Your task to perform on an android device: turn notification dots on Image 0: 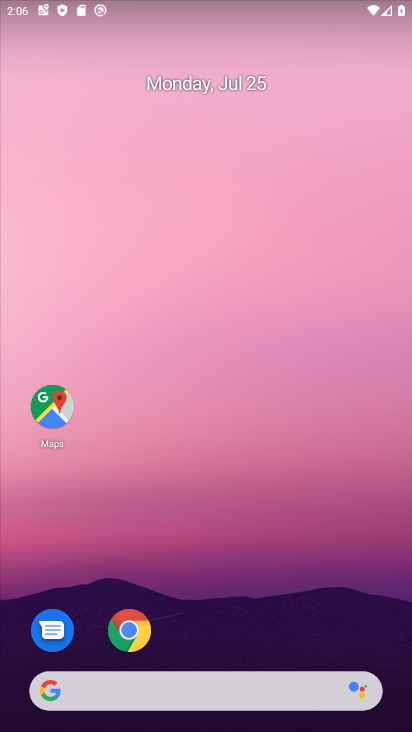
Step 0: drag from (306, 632) to (300, 262)
Your task to perform on an android device: turn notification dots on Image 1: 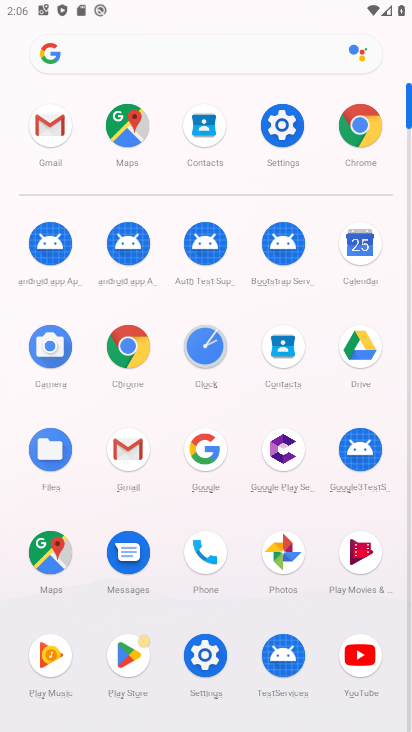
Step 1: click (206, 667)
Your task to perform on an android device: turn notification dots on Image 2: 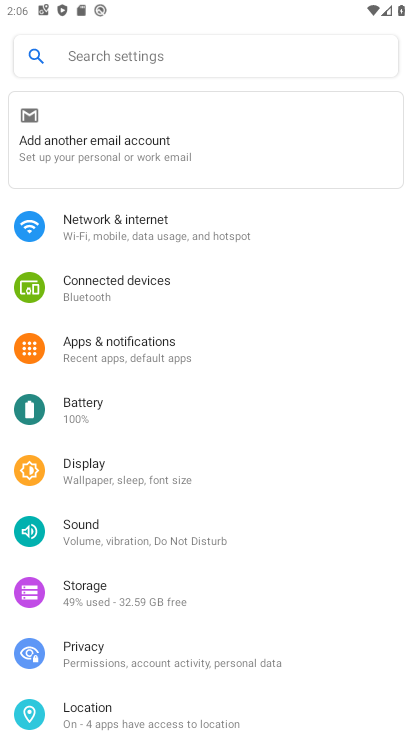
Step 2: click (204, 342)
Your task to perform on an android device: turn notification dots on Image 3: 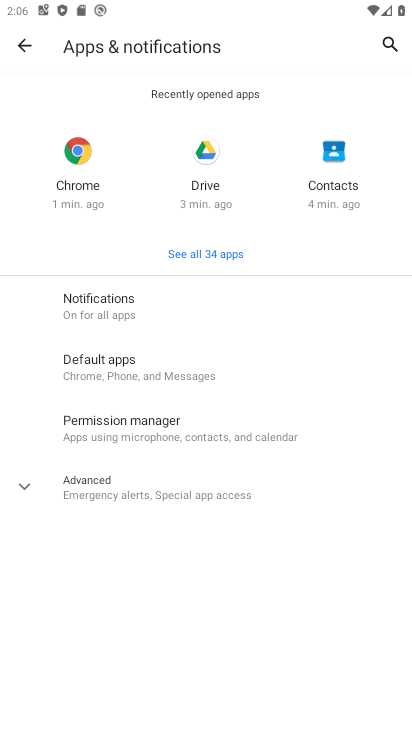
Step 3: click (210, 480)
Your task to perform on an android device: turn notification dots on Image 4: 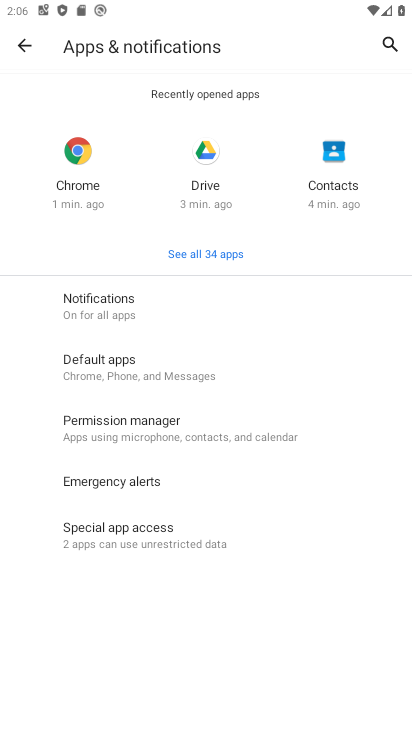
Step 4: click (125, 298)
Your task to perform on an android device: turn notification dots on Image 5: 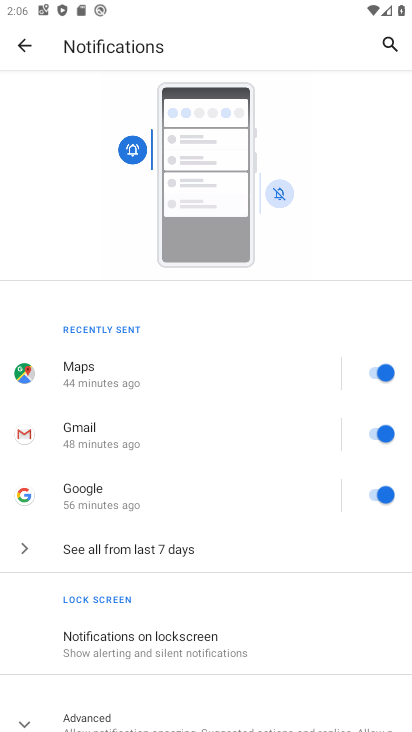
Step 5: drag from (219, 632) to (186, 355)
Your task to perform on an android device: turn notification dots on Image 6: 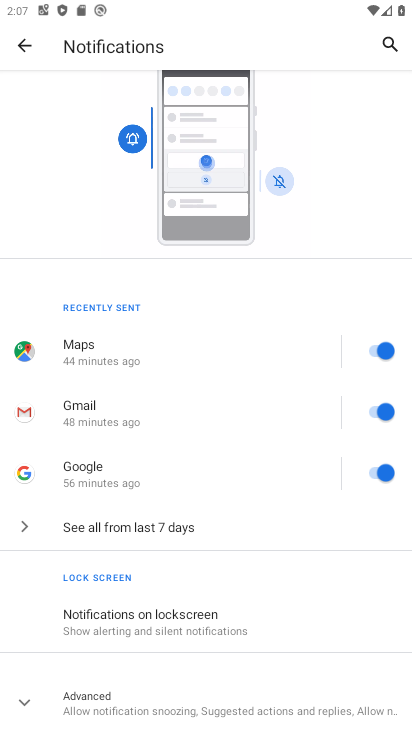
Step 6: click (205, 673)
Your task to perform on an android device: turn notification dots on Image 7: 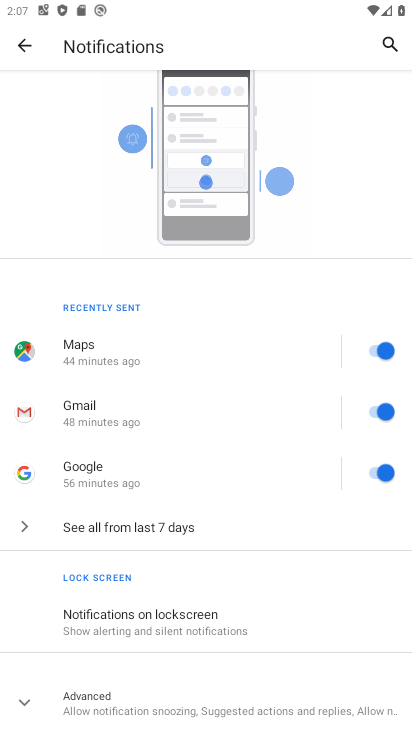
Step 7: drag from (276, 665) to (221, 345)
Your task to perform on an android device: turn notification dots on Image 8: 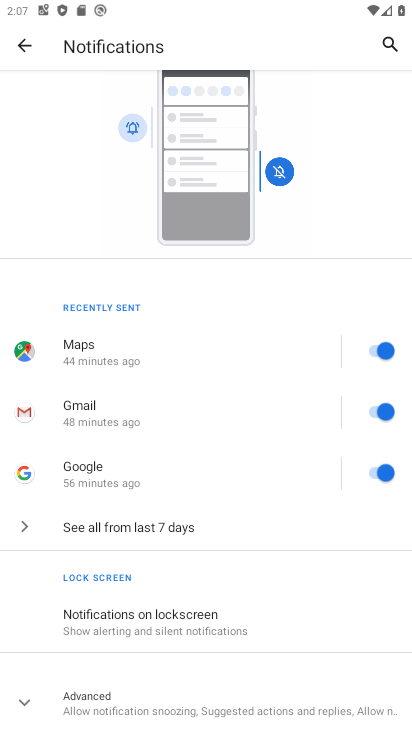
Step 8: drag from (295, 595) to (283, 405)
Your task to perform on an android device: turn notification dots on Image 9: 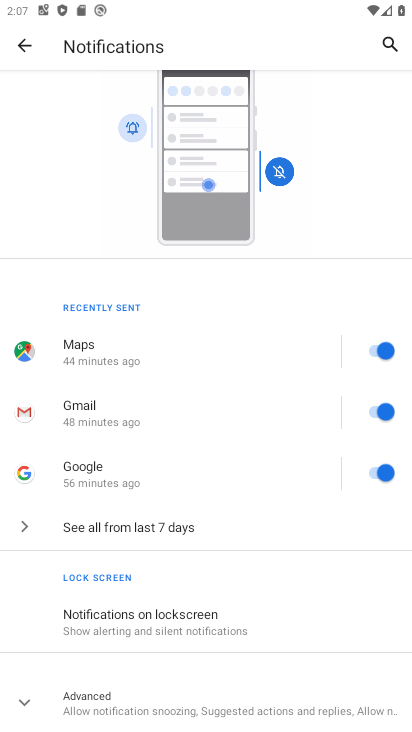
Step 9: click (209, 691)
Your task to perform on an android device: turn notification dots on Image 10: 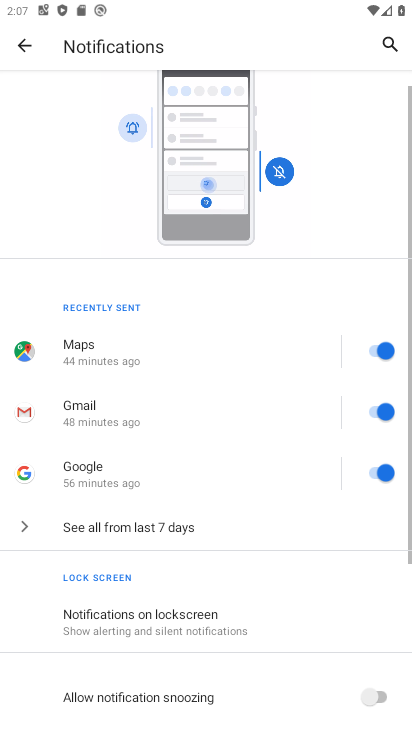
Step 10: drag from (209, 691) to (198, 516)
Your task to perform on an android device: turn notification dots on Image 11: 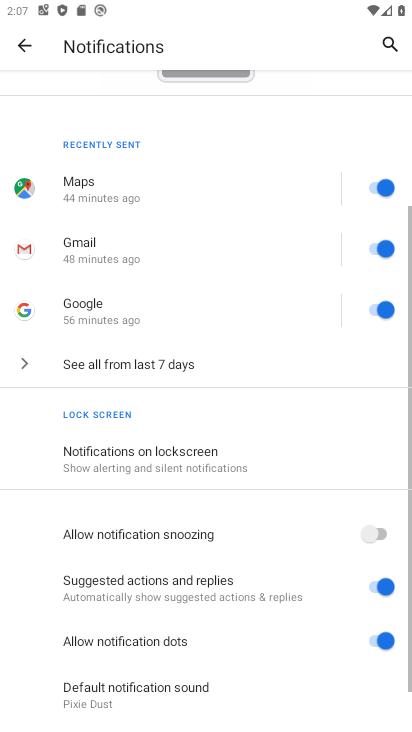
Step 11: click (339, 617)
Your task to perform on an android device: turn notification dots on Image 12: 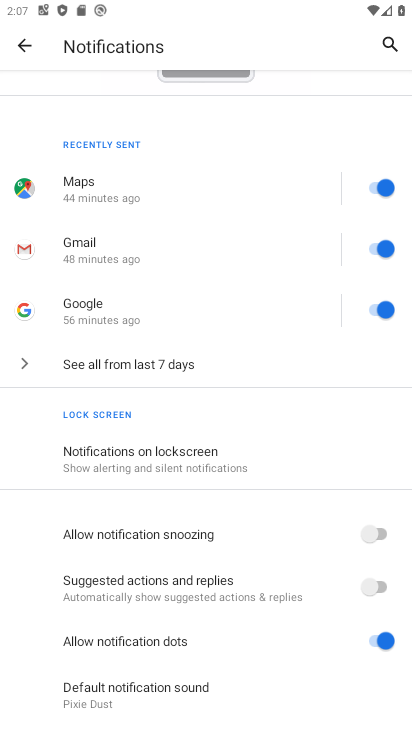
Step 12: task complete